Your task to perform on an android device: Go to Google maps Image 0: 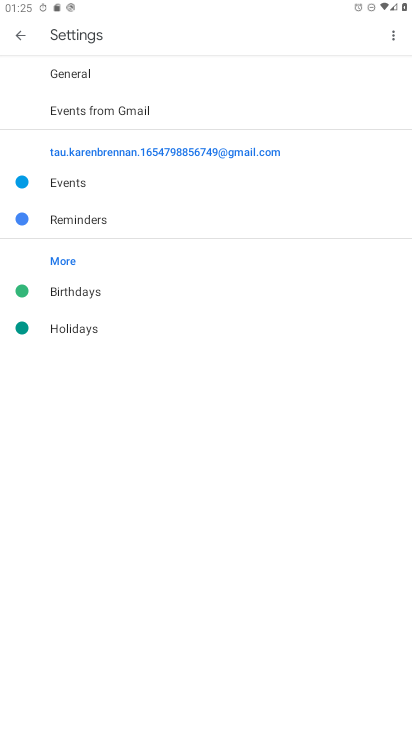
Step 0: press home button
Your task to perform on an android device: Go to Google maps Image 1: 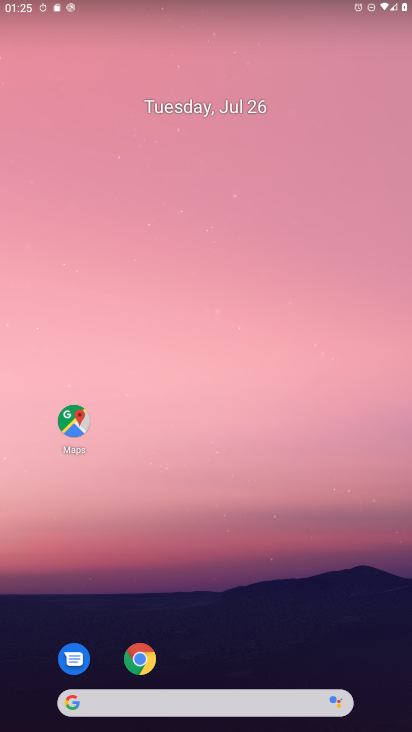
Step 1: click (79, 418)
Your task to perform on an android device: Go to Google maps Image 2: 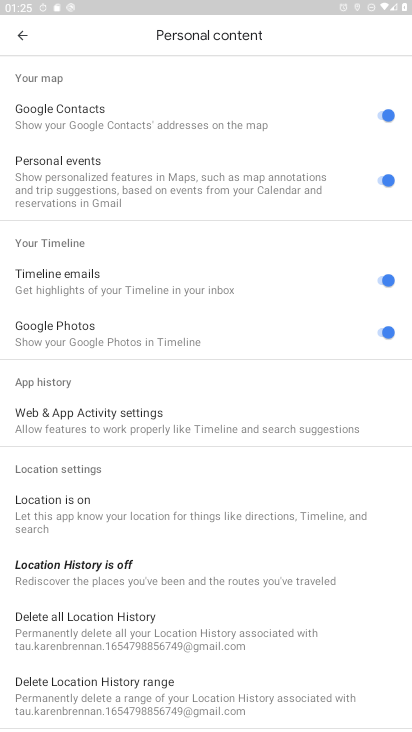
Step 2: click (17, 31)
Your task to perform on an android device: Go to Google maps Image 3: 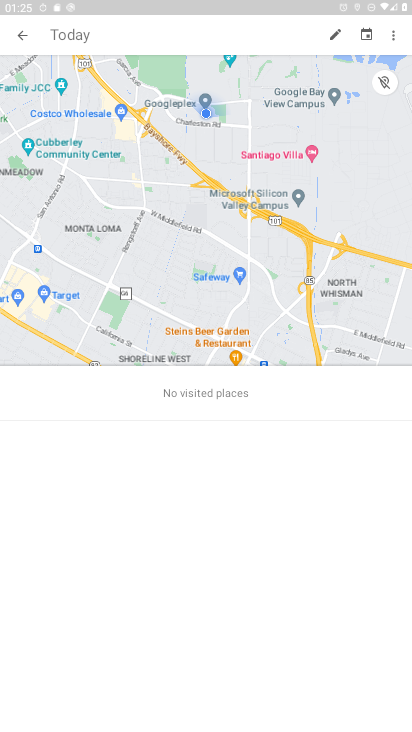
Step 3: click (16, 31)
Your task to perform on an android device: Go to Google maps Image 4: 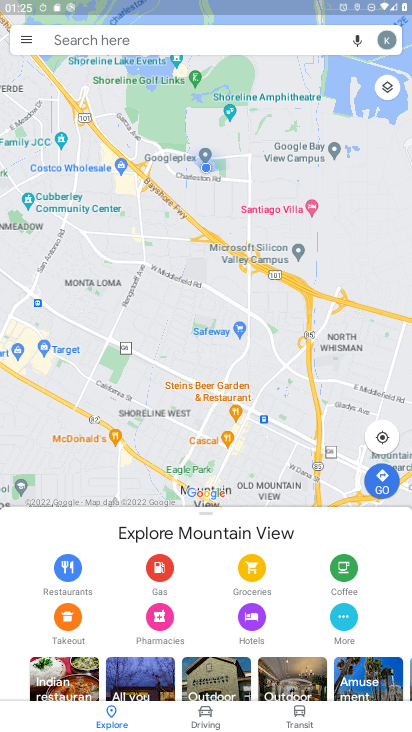
Step 4: task complete